Your task to perform on an android device: Open the map Image 0: 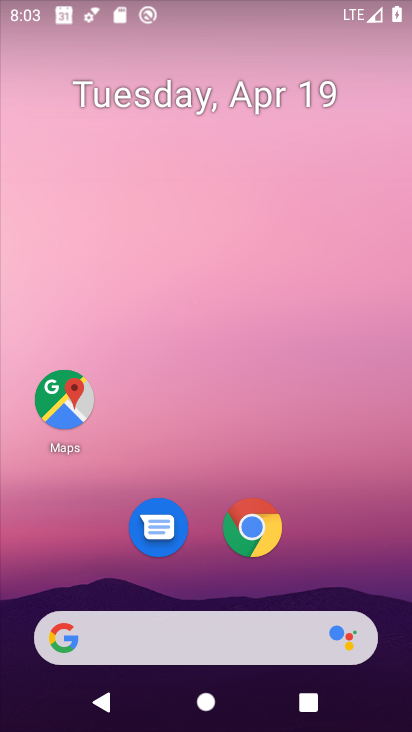
Step 0: click (63, 412)
Your task to perform on an android device: Open the map Image 1: 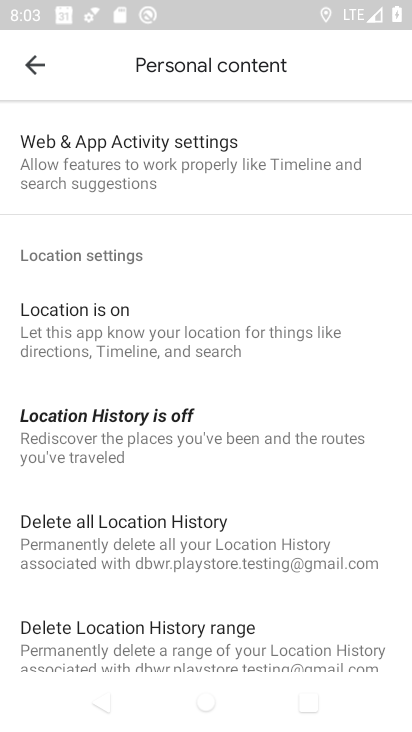
Step 1: click (43, 67)
Your task to perform on an android device: Open the map Image 2: 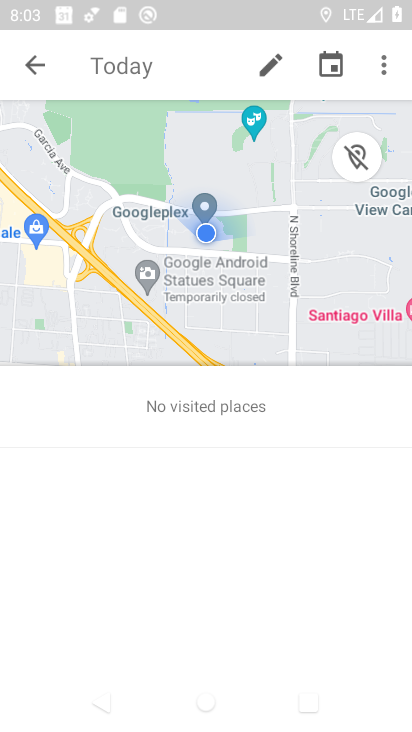
Step 2: click (41, 66)
Your task to perform on an android device: Open the map Image 3: 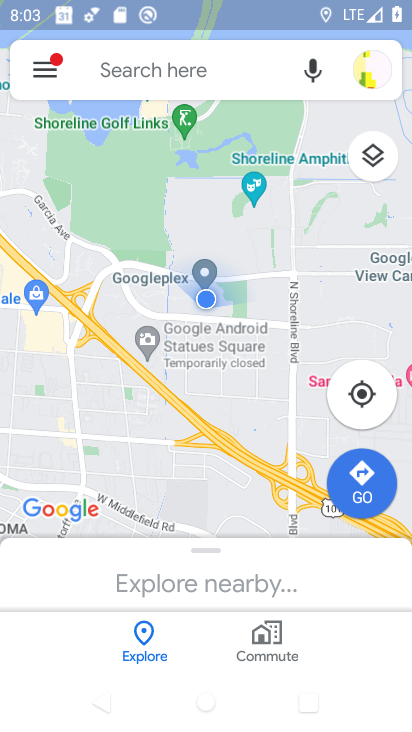
Step 3: click (39, 62)
Your task to perform on an android device: Open the map Image 4: 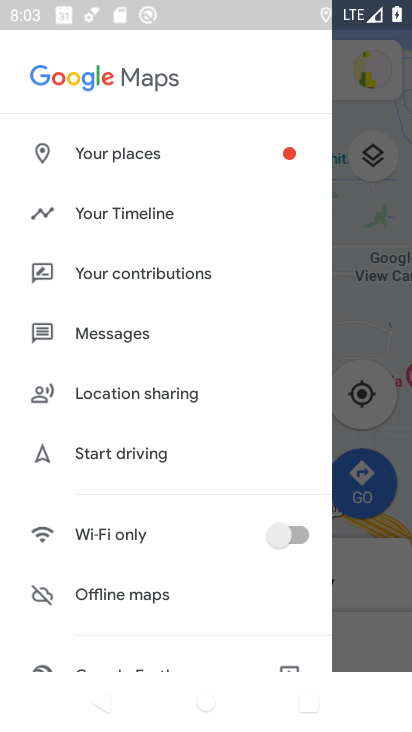
Step 4: click (346, 636)
Your task to perform on an android device: Open the map Image 5: 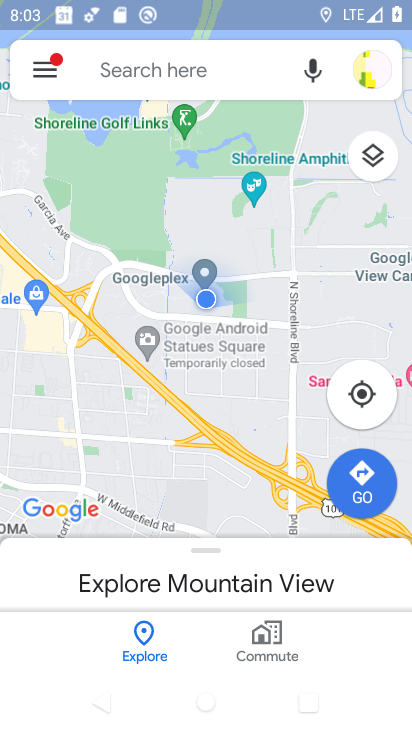
Step 5: task complete